Your task to perform on an android device: What's on my calendar tomorrow? Image 0: 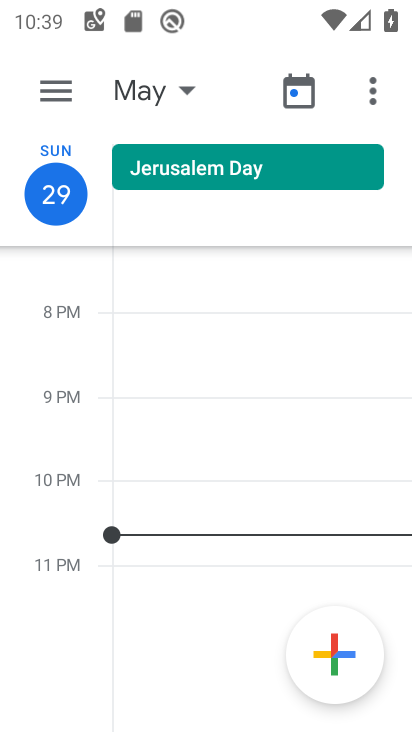
Step 0: click (63, 98)
Your task to perform on an android device: What's on my calendar tomorrow? Image 1: 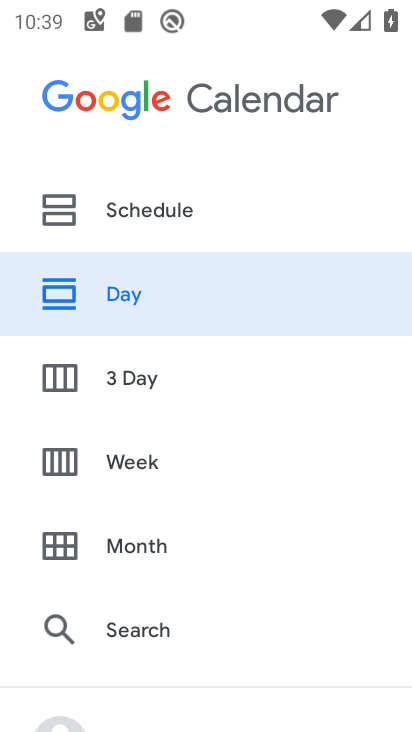
Step 1: click (207, 197)
Your task to perform on an android device: What's on my calendar tomorrow? Image 2: 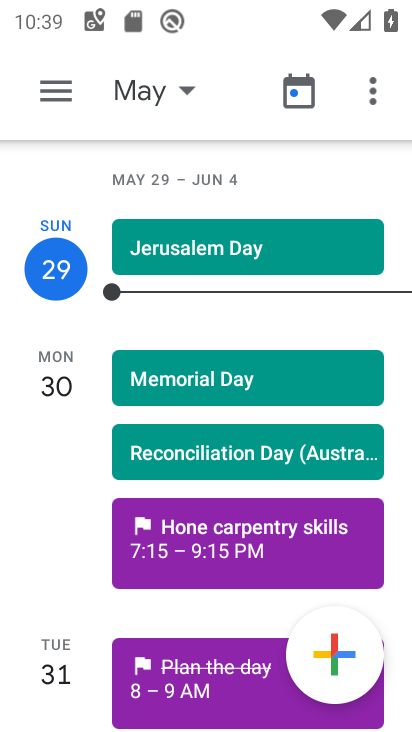
Step 2: task complete